Your task to perform on an android device: Open Google Chrome Image 0: 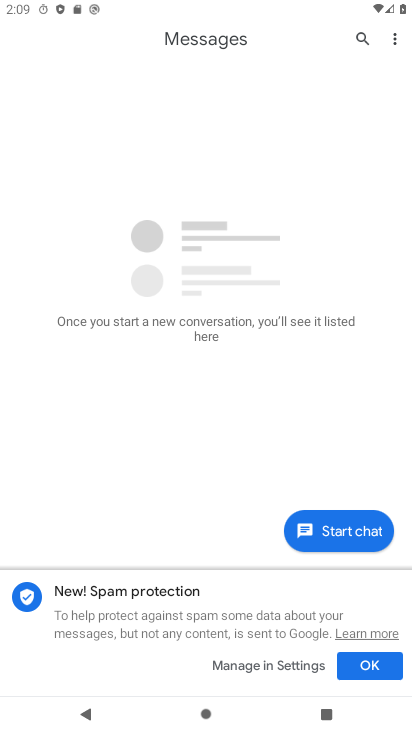
Step 0: press home button
Your task to perform on an android device: Open Google Chrome Image 1: 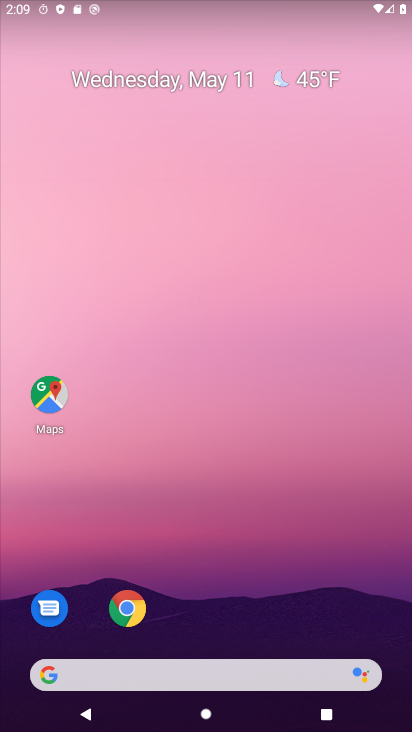
Step 1: click (122, 613)
Your task to perform on an android device: Open Google Chrome Image 2: 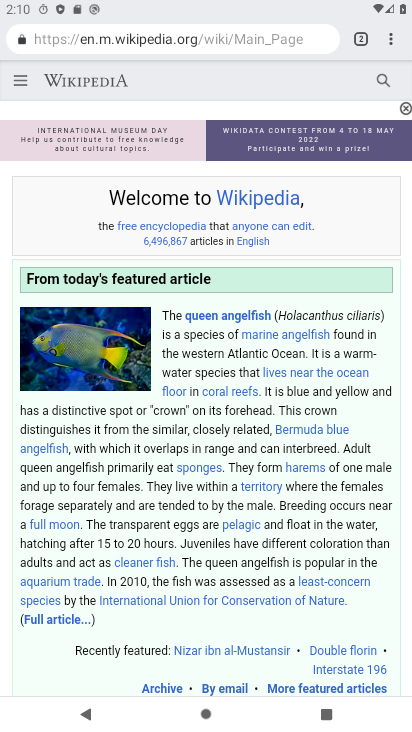
Step 2: task complete